Your task to perform on an android device: turn pop-ups off in chrome Image 0: 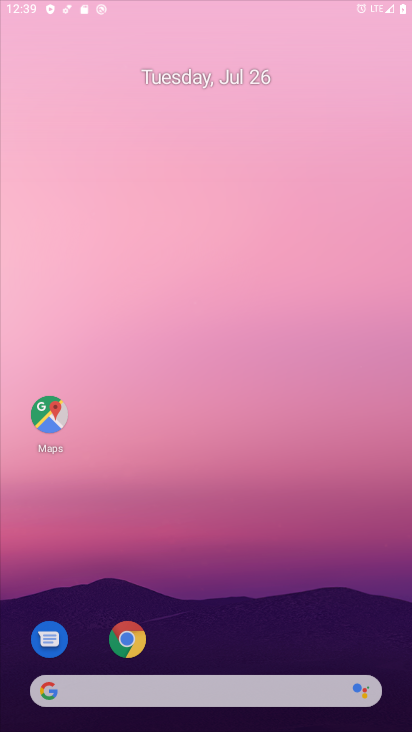
Step 0: drag from (371, 8) to (386, 320)
Your task to perform on an android device: turn pop-ups off in chrome Image 1: 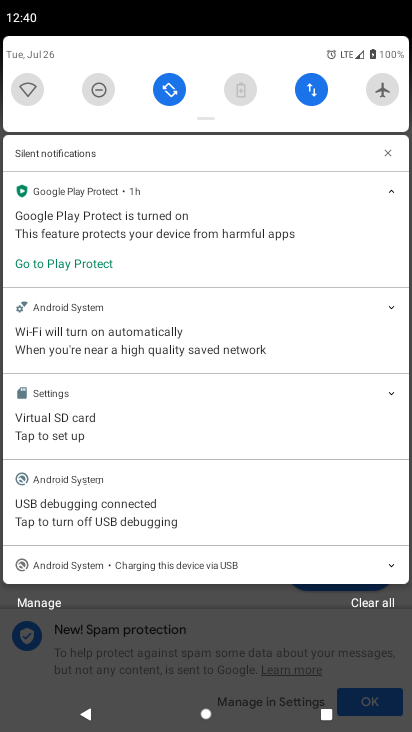
Step 1: press home button
Your task to perform on an android device: turn pop-ups off in chrome Image 2: 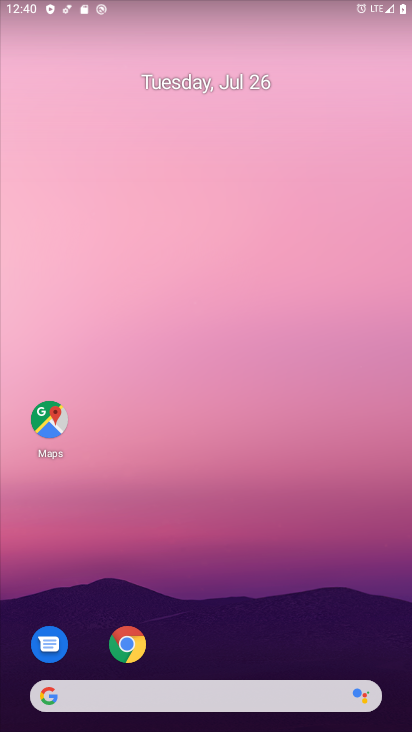
Step 2: click (131, 641)
Your task to perform on an android device: turn pop-ups off in chrome Image 3: 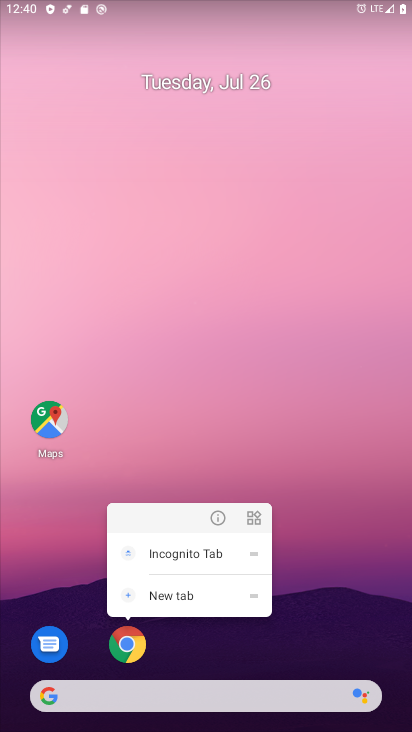
Step 3: click (131, 641)
Your task to perform on an android device: turn pop-ups off in chrome Image 4: 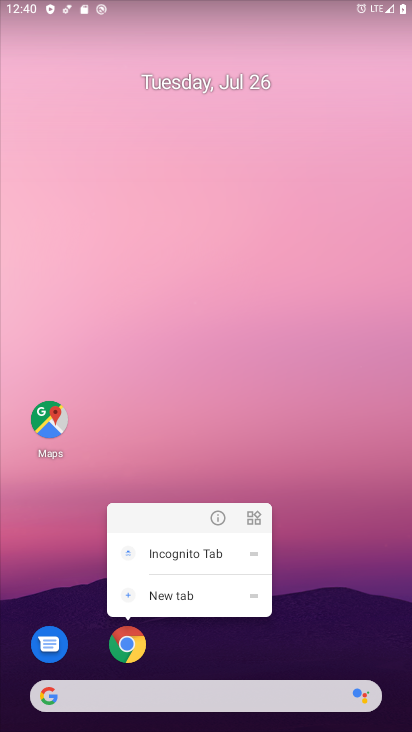
Step 4: click (131, 641)
Your task to perform on an android device: turn pop-ups off in chrome Image 5: 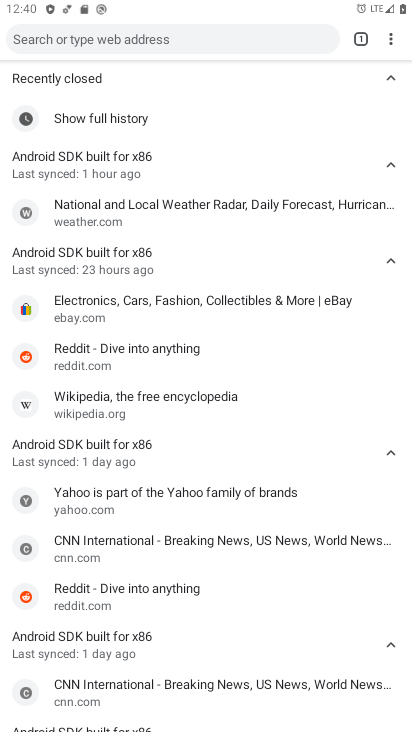
Step 5: click (384, 38)
Your task to perform on an android device: turn pop-ups off in chrome Image 6: 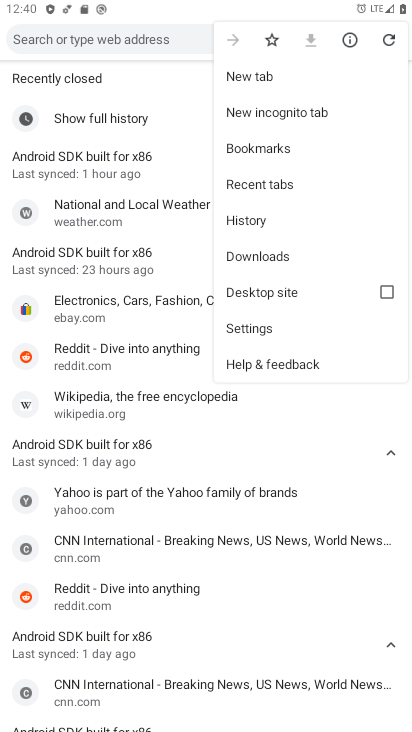
Step 6: click (242, 332)
Your task to perform on an android device: turn pop-ups off in chrome Image 7: 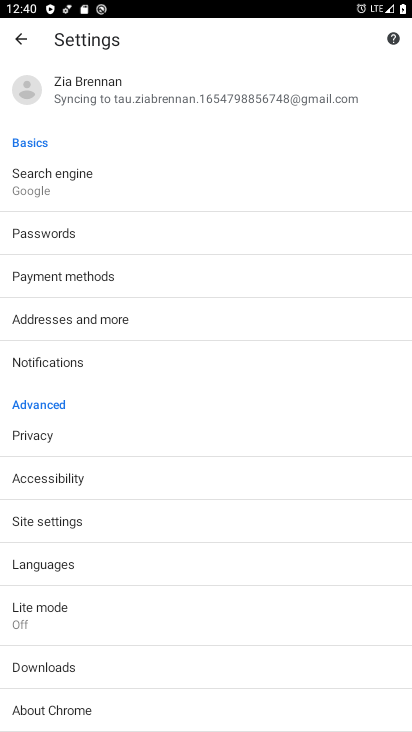
Step 7: click (83, 514)
Your task to perform on an android device: turn pop-ups off in chrome Image 8: 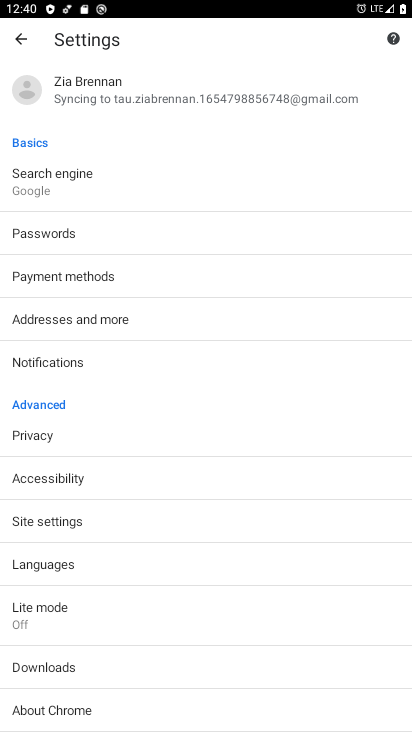
Step 8: click (83, 514)
Your task to perform on an android device: turn pop-ups off in chrome Image 9: 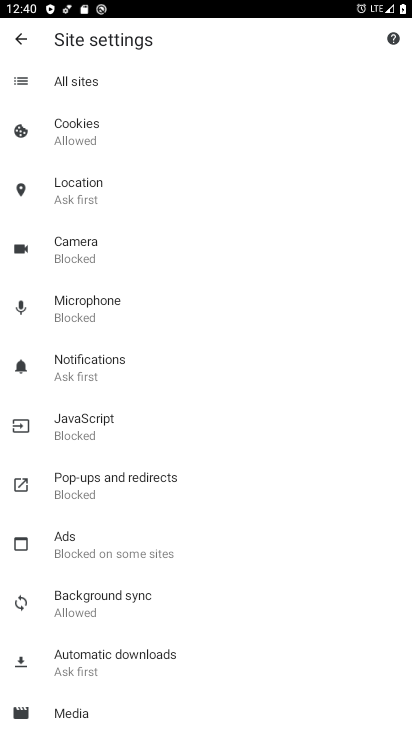
Step 9: click (106, 487)
Your task to perform on an android device: turn pop-ups off in chrome Image 10: 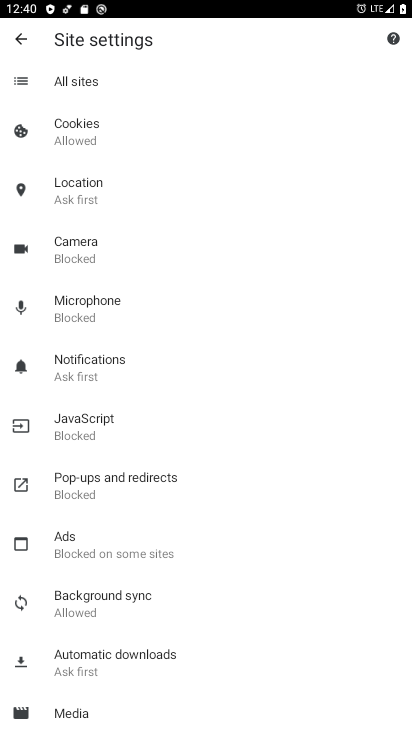
Step 10: click (106, 487)
Your task to perform on an android device: turn pop-ups off in chrome Image 11: 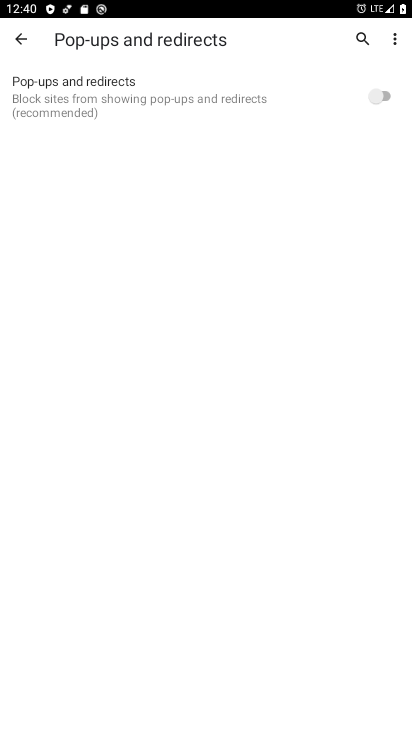
Step 11: task complete